Your task to perform on an android device: Set an alarm for 10am Image 0: 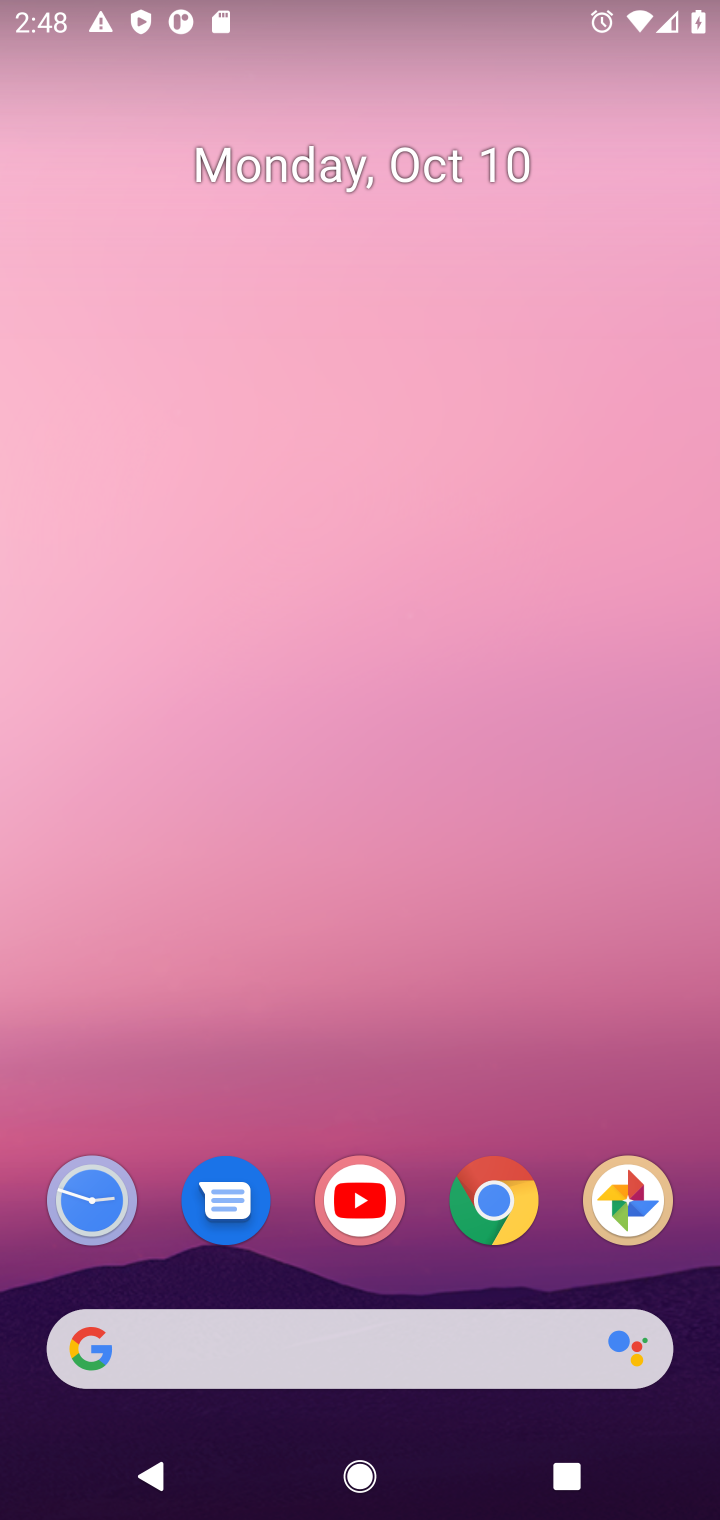
Step 0: click (91, 1203)
Your task to perform on an android device: Set an alarm for 10am Image 1: 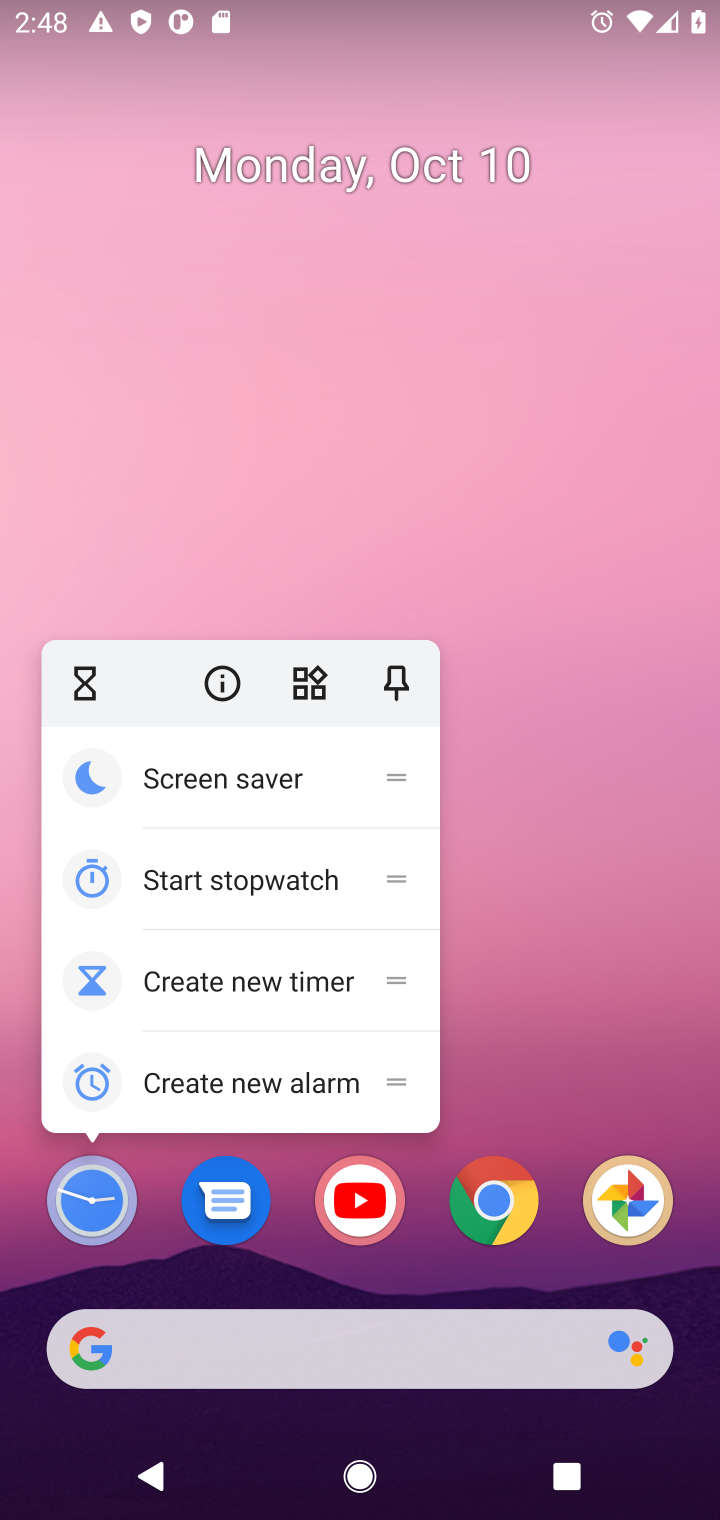
Step 1: click (91, 1195)
Your task to perform on an android device: Set an alarm for 10am Image 2: 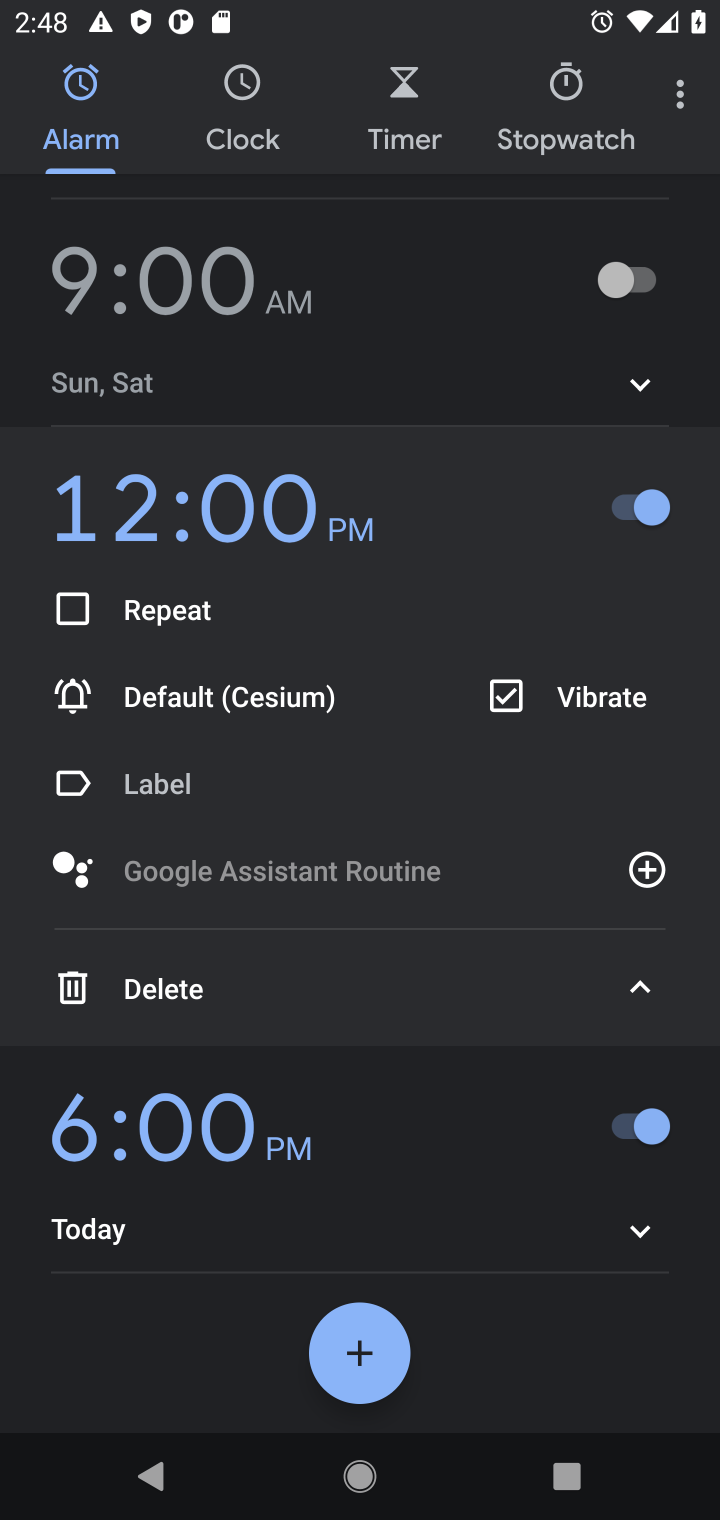
Step 2: click (352, 1359)
Your task to perform on an android device: Set an alarm for 10am Image 3: 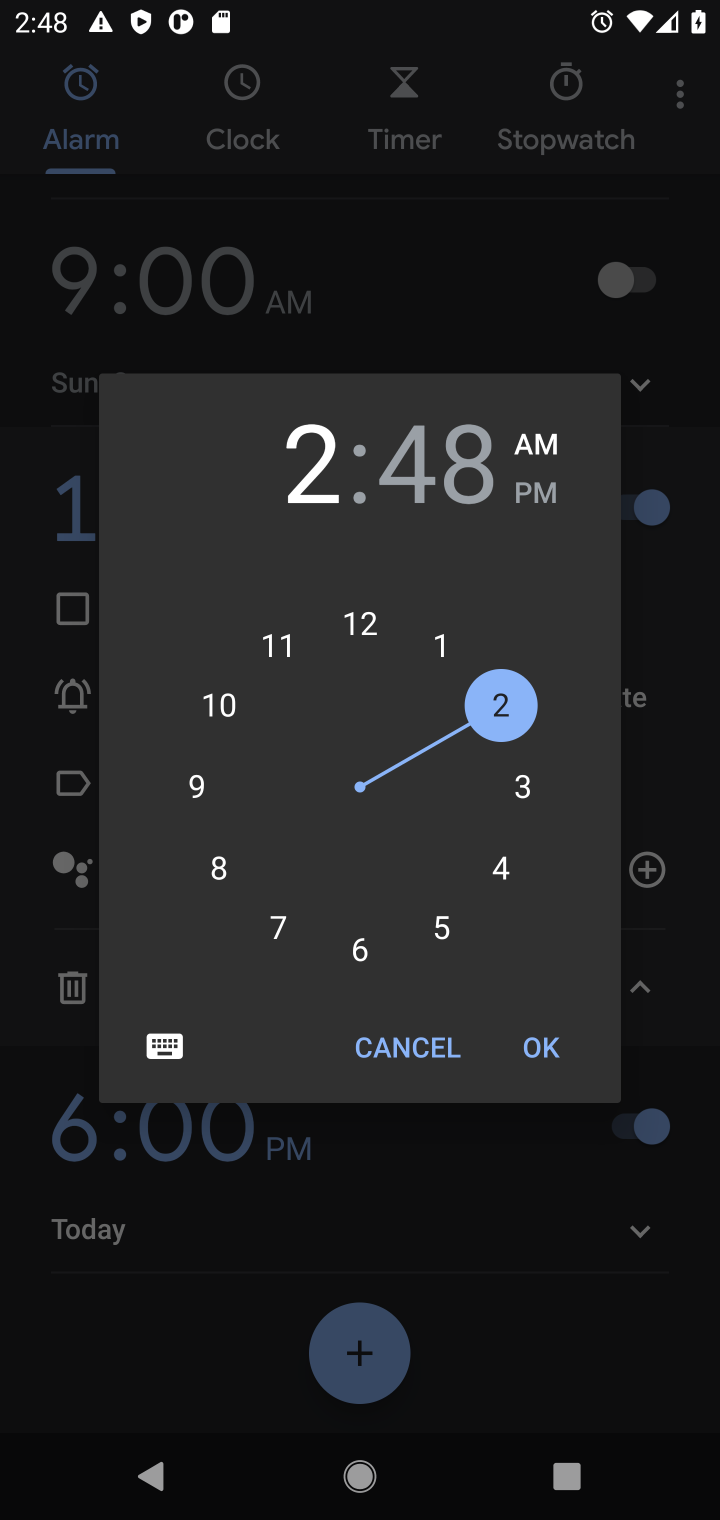
Step 3: click (525, 450)
Your task to perform on an android device: Set an alarm for 10am Image 4: 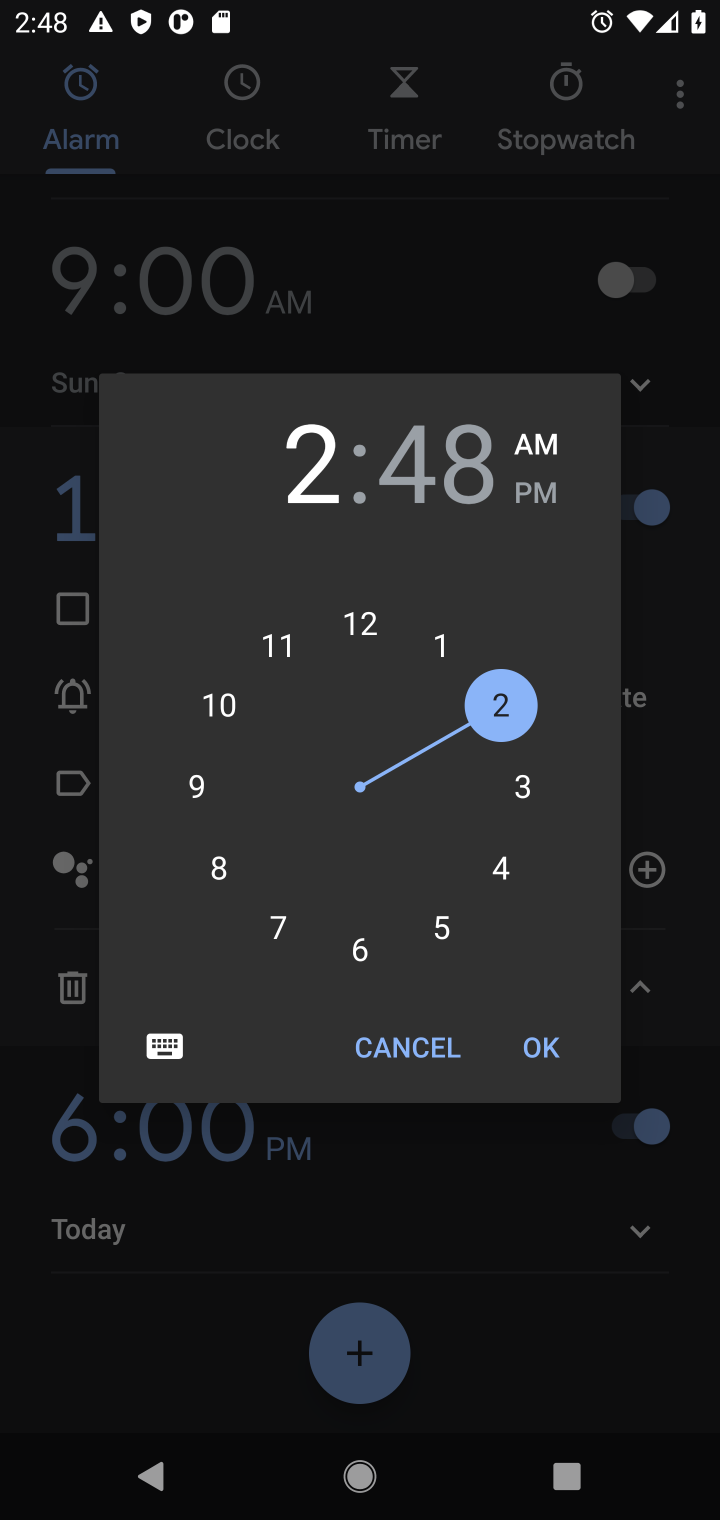
Step 4: click (216, 714)
Your task to perform on an android device: Set an alarm for 10am Image 5: 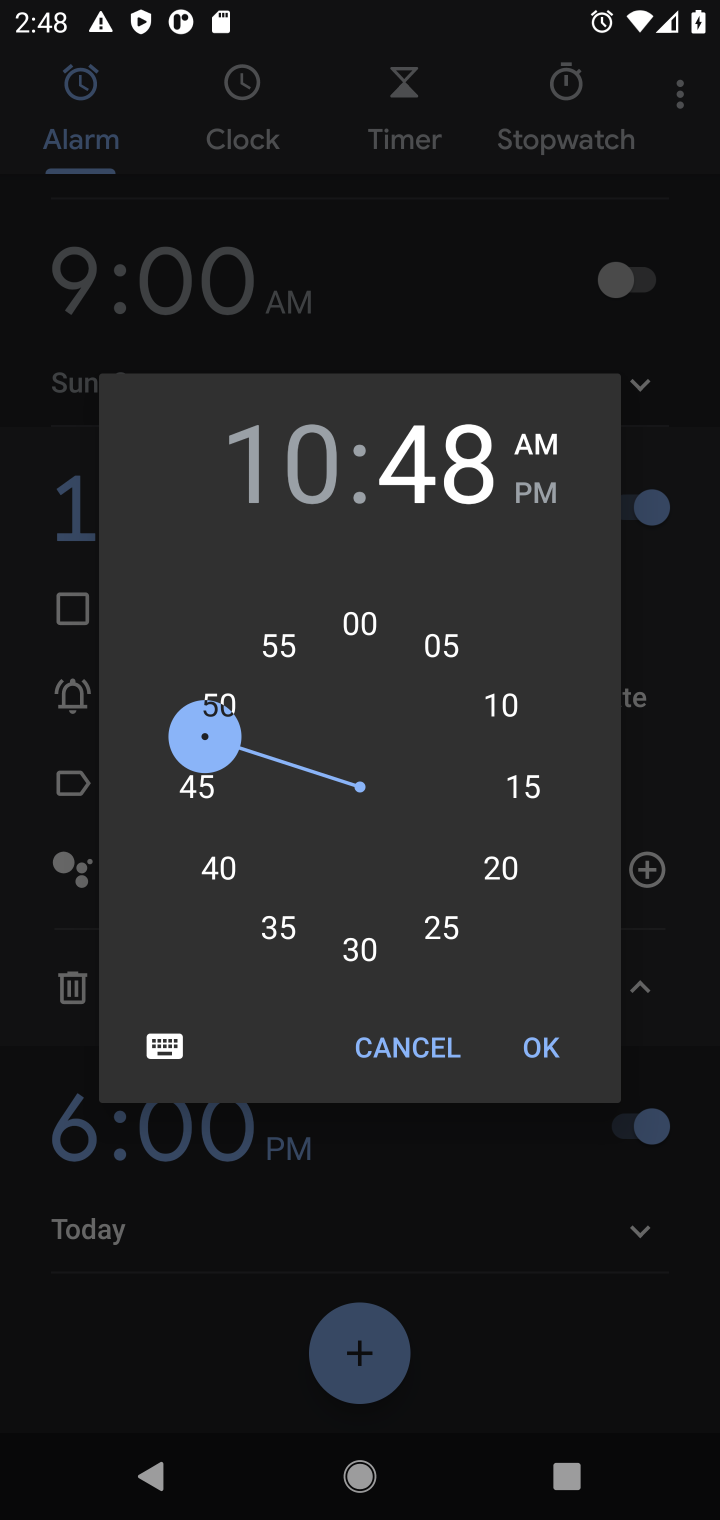
Step 5: click (370, 637)
Your task to perform on an android device: Set an alarm for 10am Image 6: 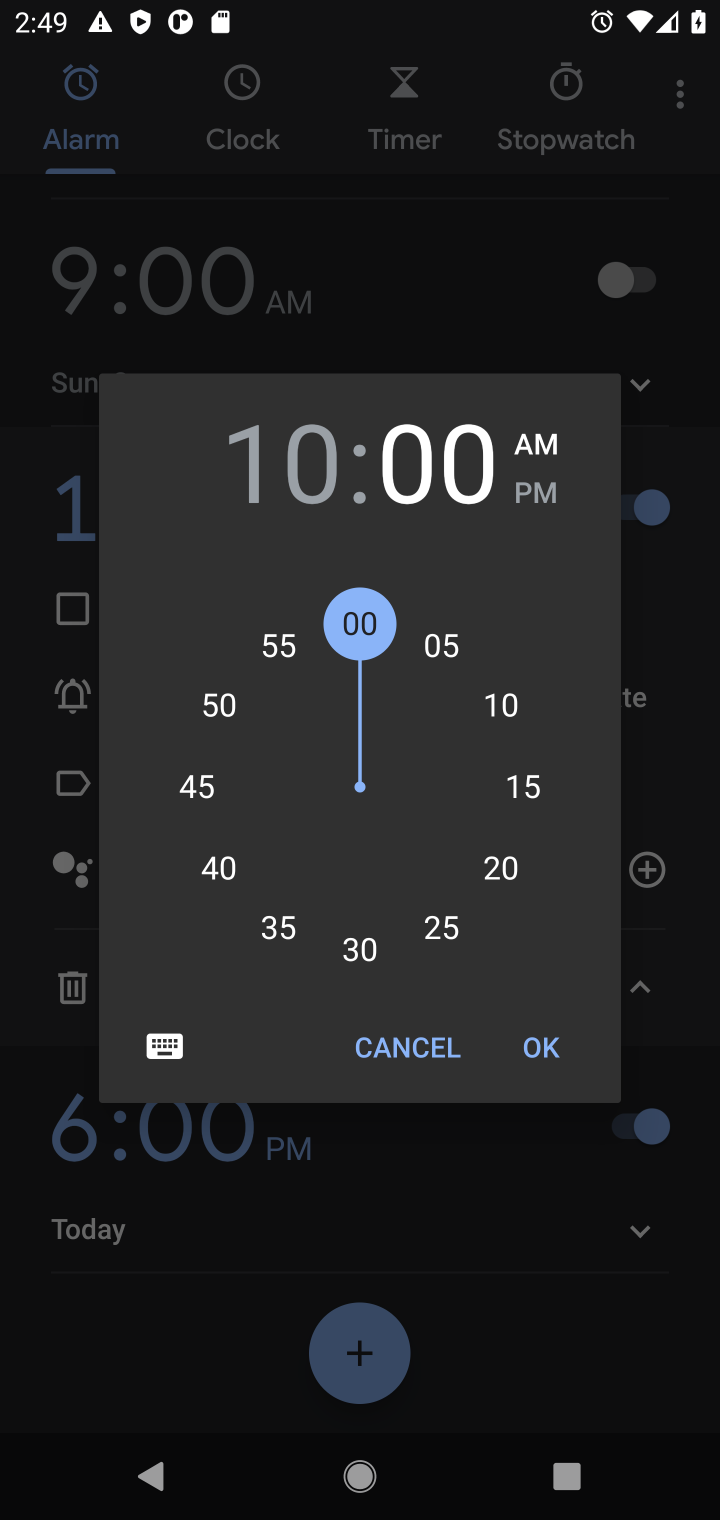
Step 6: click (541, 1059)
Your task to perform on an android device: Set an alarm for 10am Image 7: 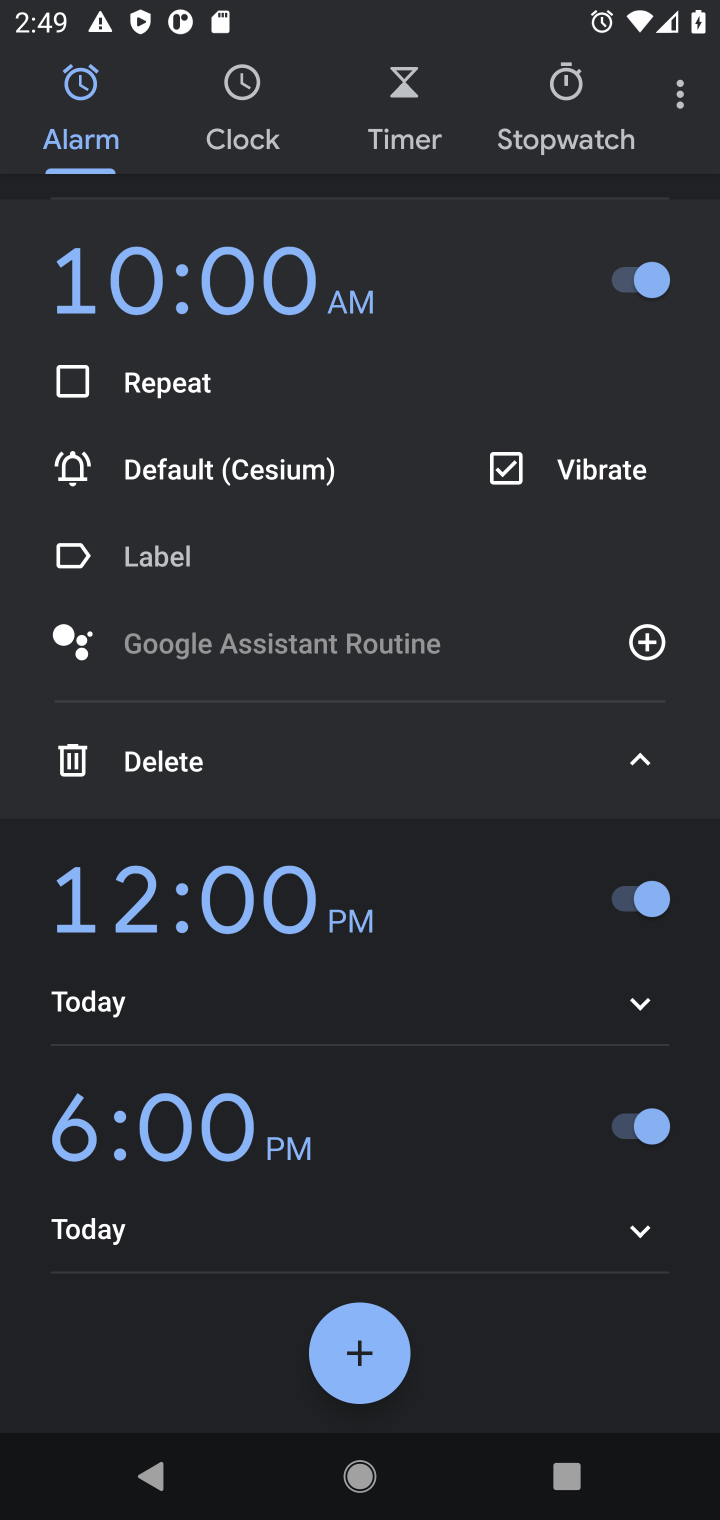
Step 7: task complete